Your task to perform on an android device: change alarm snooze length Image 0: 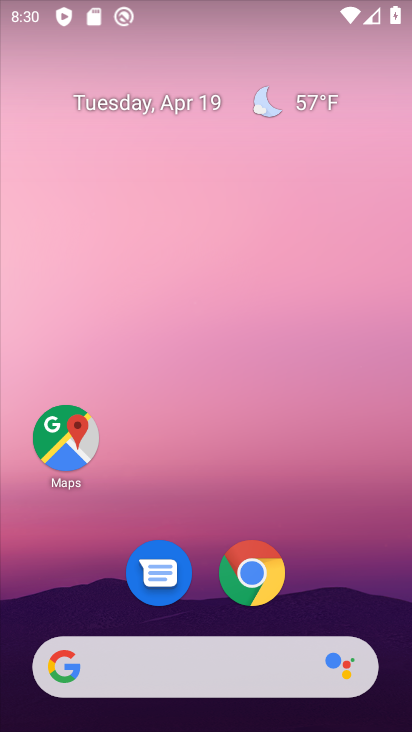
Step 0: drag from (327, 597) to (242, 141)
Your task to perform on an android device: change alarm snooze length Image 1: 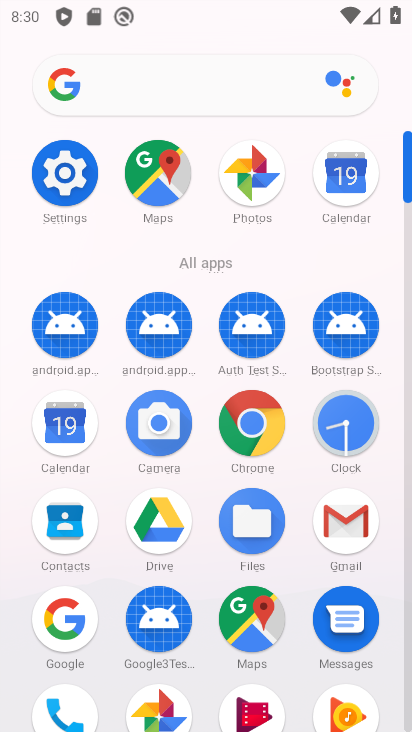
Step 1: click (345, 425)
Your task to perform on an android device: change alarm snooze length Image 2: 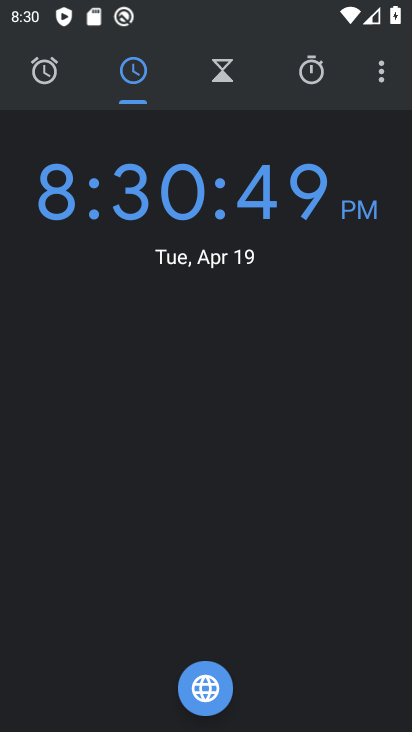
Step 2: click (382, 77)
Your task to perform on an android device: change alarm snooze length Image 3: 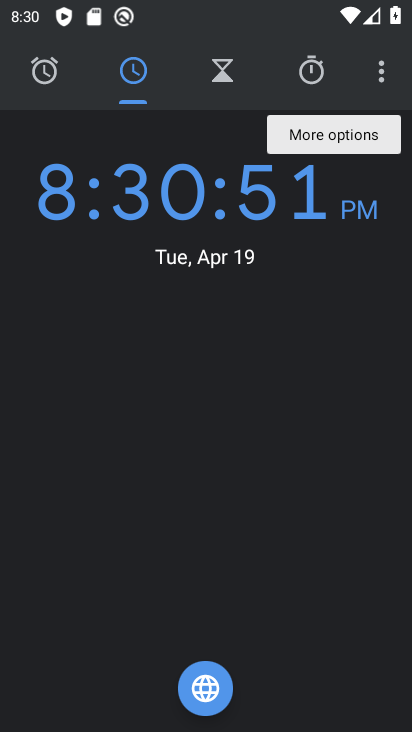
Step 3: click (382, 77)
Your task to perform on an android device: change alarm snooze length Image 4: 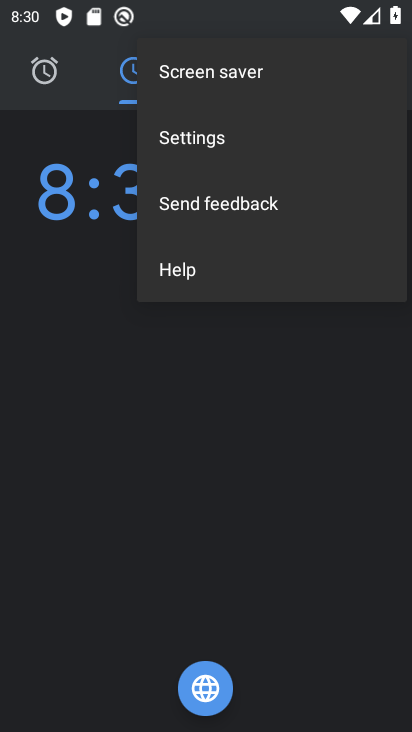
Step 4: click (204, 140)
Your task to perform on an android device: change alarm snooze length Image 5: 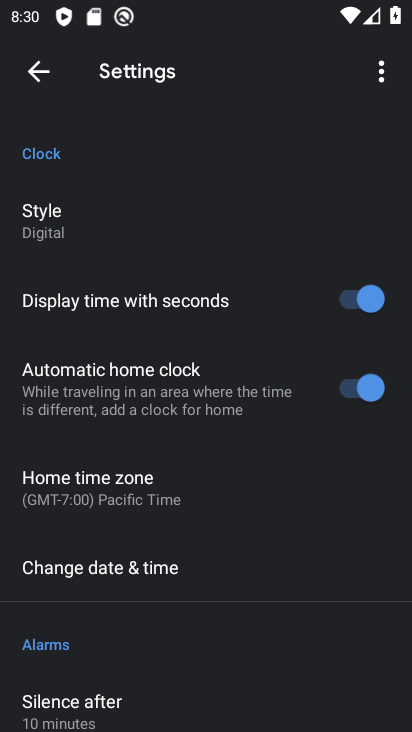
Step 5: drag from (269, 622) to (266, 141)
Your task to perform on an android device: change alarm snooze length Image 6: 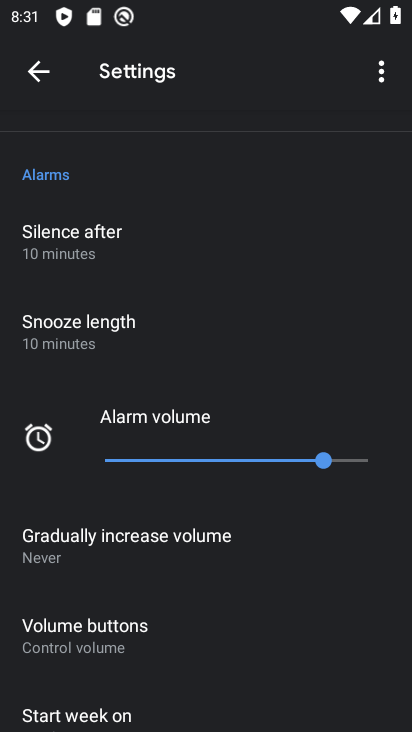
Step 6: drag from (259, 663) to (284, 227)
Your task to perform on an android device: change alarm snooze length Image 7: 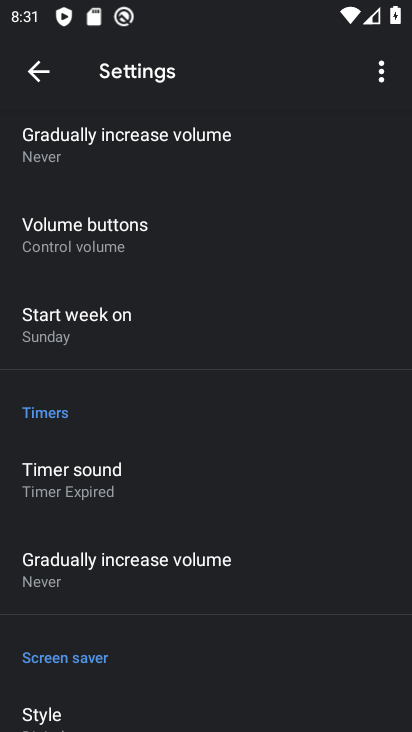
Step 7: drag from (277, 632) to (285, 283)
Your task to perform on an android device: change alarm snooze length Image 8: 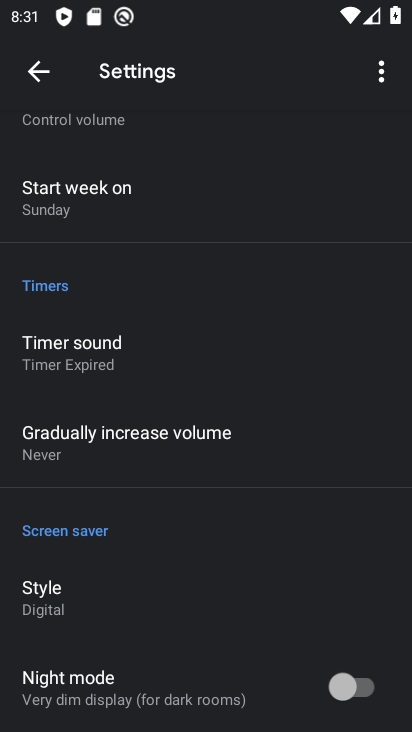
Step 8: drag from (213, 545) to (240, 209)
Your task to perform on an android device: change alarm snooze length Image 9: 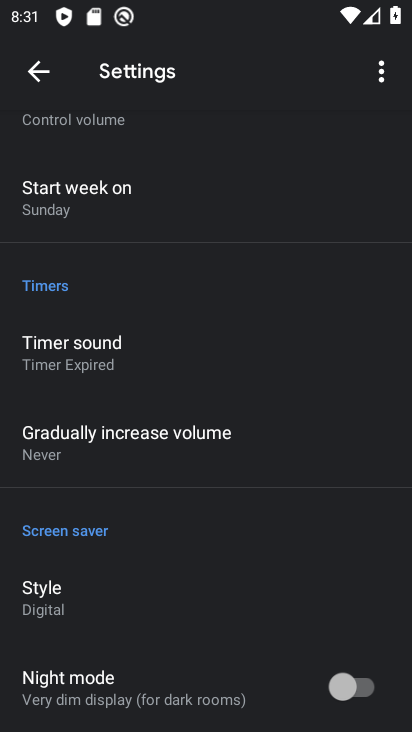
Step 9: drag from (271, 194) to (250, 610)
Your task to perform on an android device: change alarm snooze length Image 10: 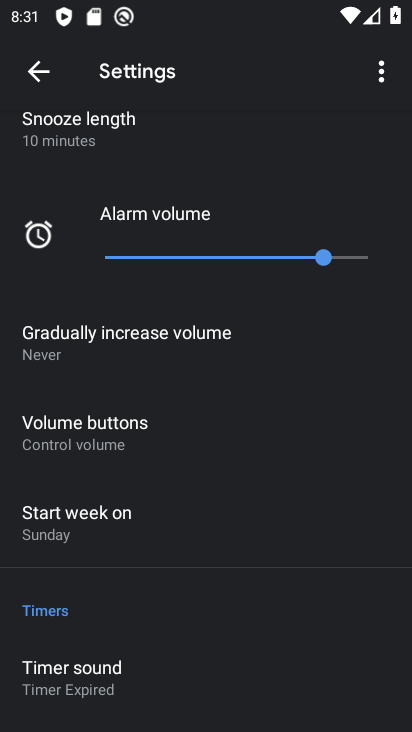
Step 10: drag from (288, 366) to (253, 624)
Your task to perform on an android device: change alarm snooze length Image 11: 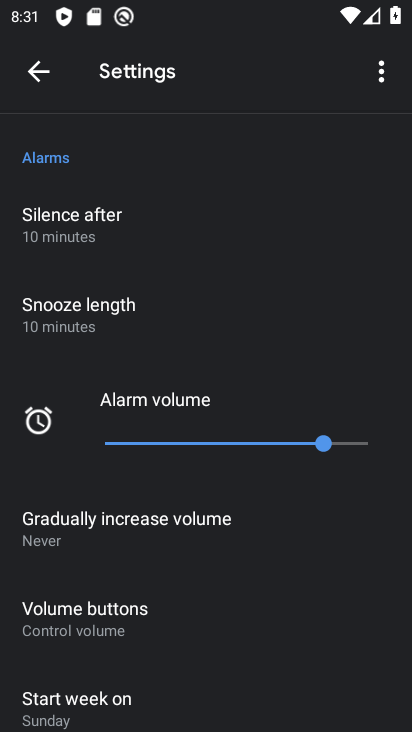
Step 11: click (146, 310)
Your task to perform on an android device: change alarm snooze length Image 12: 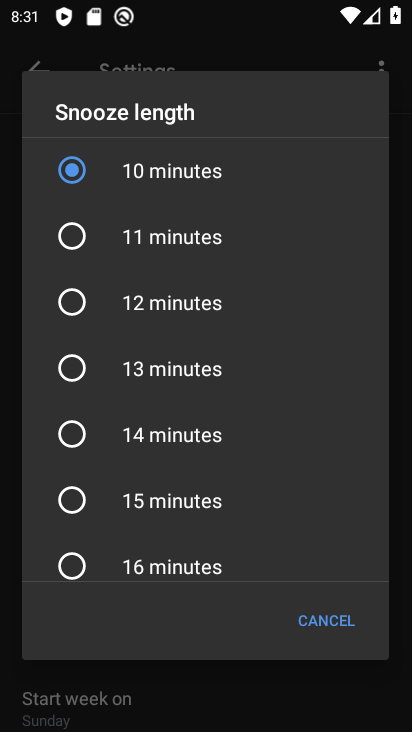
Step 12: drag from (152, 221) to (157, 555)
Your task to perform on an android device: change alarm snooze length Image 13: 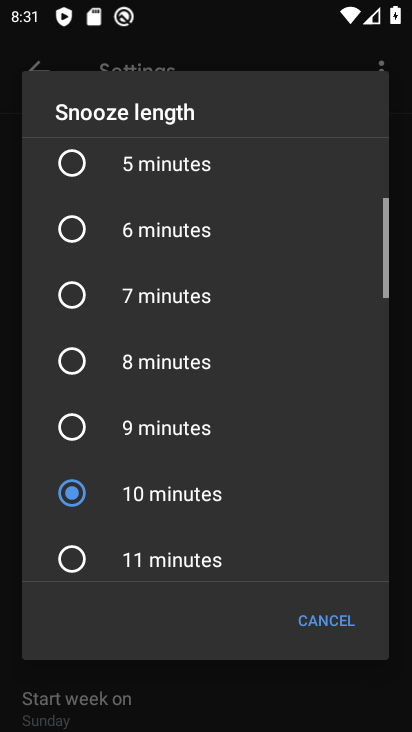
Step 13: click (76, 228)
Your task to perform on an android device: change alarm snooze length Image 14: 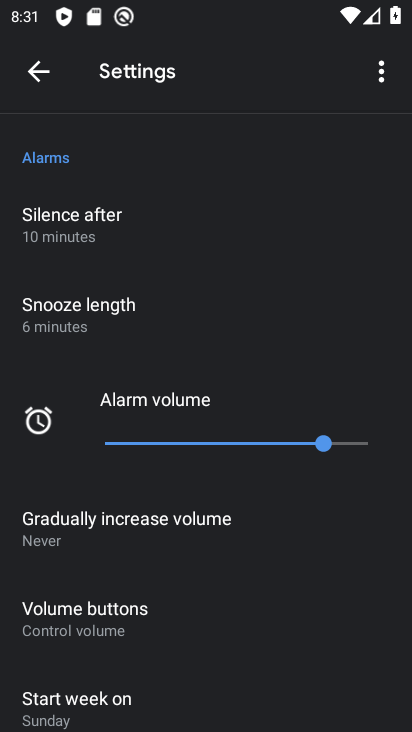
Step 14: task complete